Your task to perform on an android device: change your default location settings in chrome Image 0: 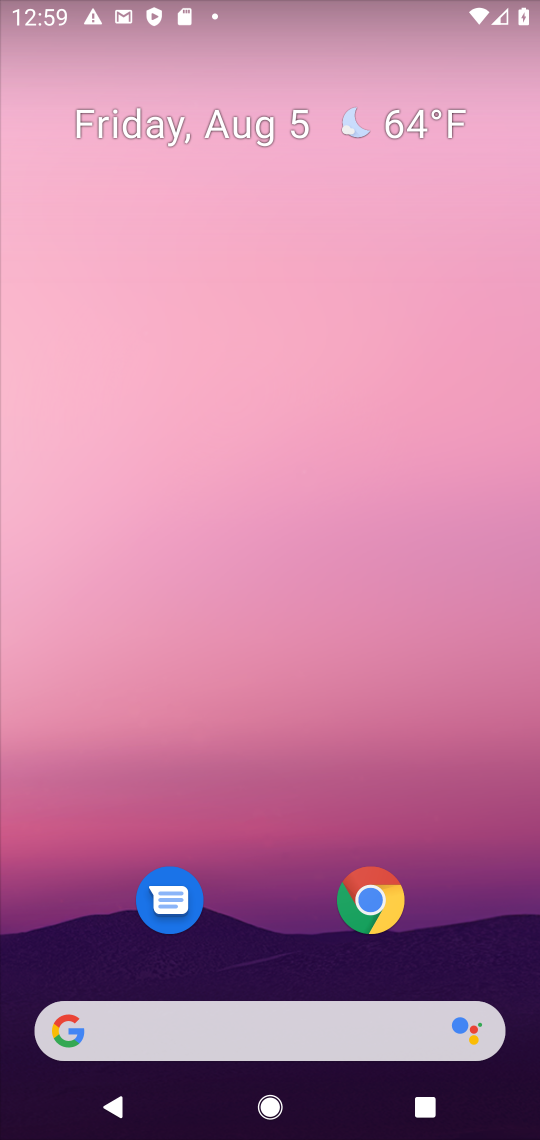
Step 0: drag from (263, 921) to (339, 0)
Your task to perform on an android device: change your default location settings in chrome Image 1: 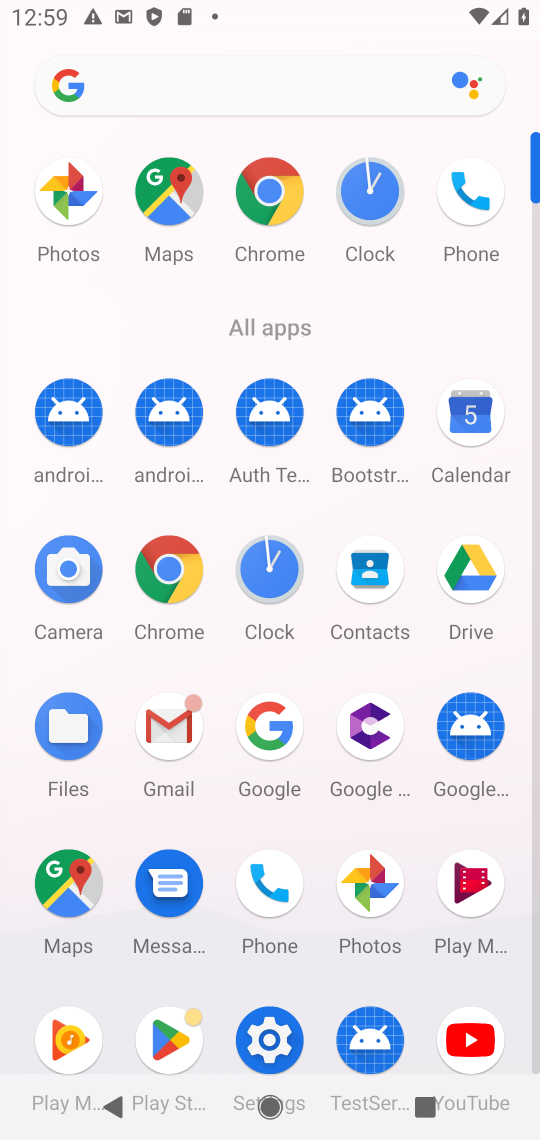
Step 1: click (164, 558)
Your task to perform on an android device: change your default location settings in chrome Image 2: 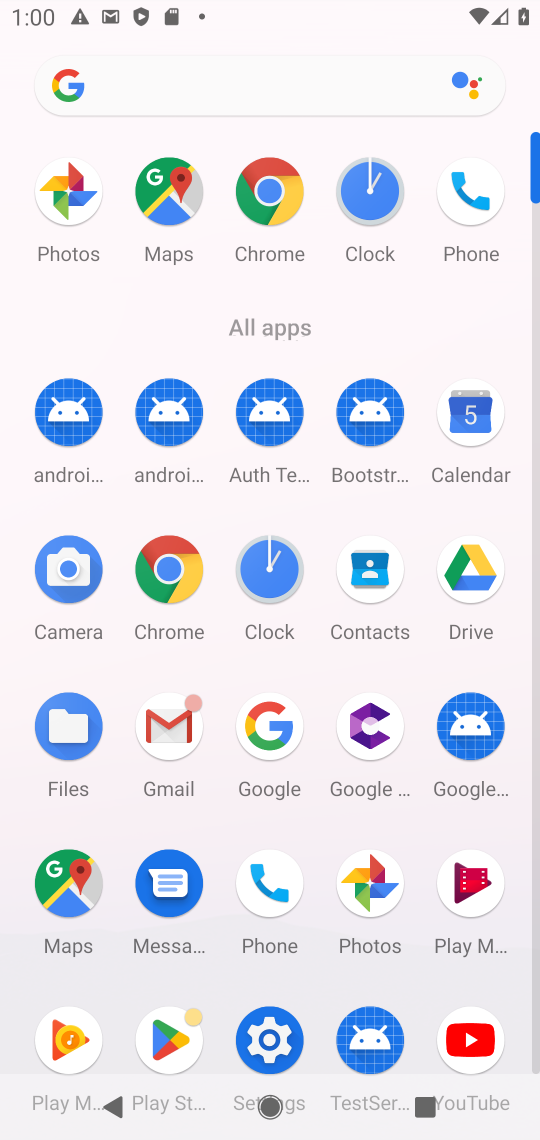
Step 2: click (171, 559)
Your task to perform on an android device: change your default location settings in chrome Image 3: 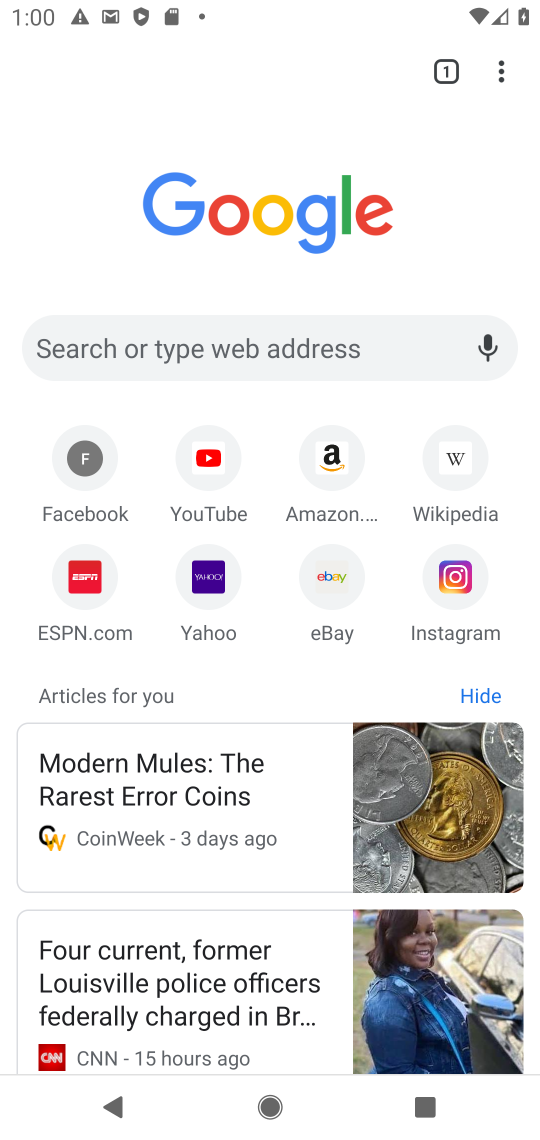
Step 3: click (503, 74)
Your task to perform on an android device: change your default location settings in chrome Image 4: 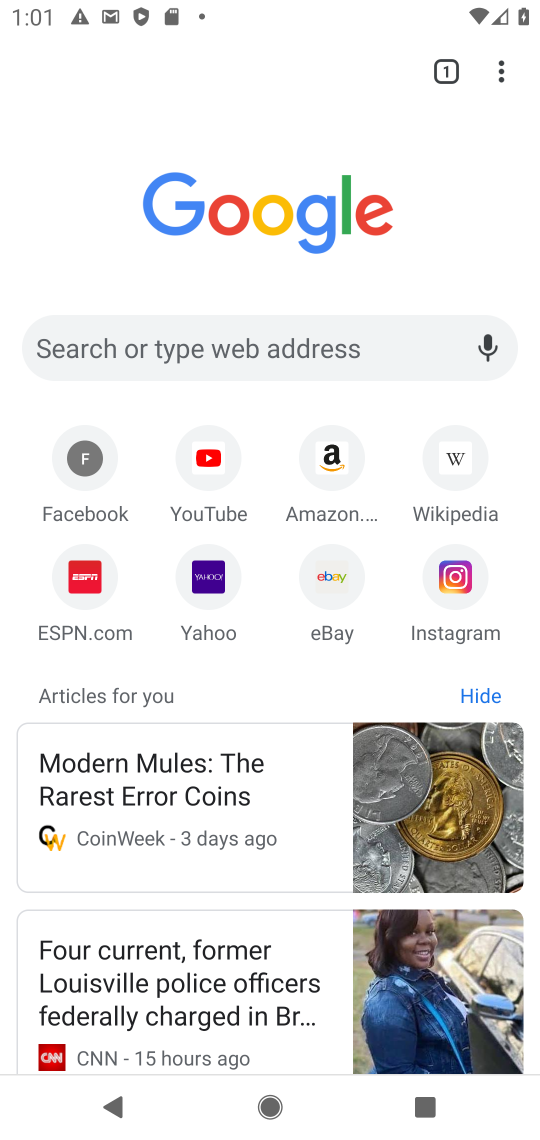
Step 4: click (501, 74)
Your task to perform on an android device: change your default location settings in chrome Image 5: 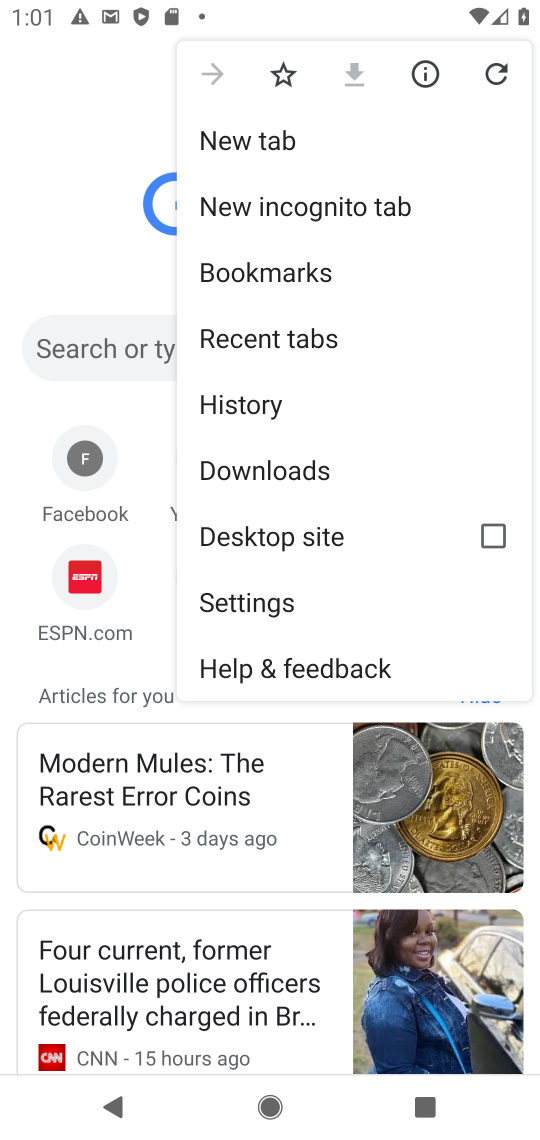
Step 5: click (313, 598)
Your task to perform on an android device: change your default location settings in chrome Image 6: 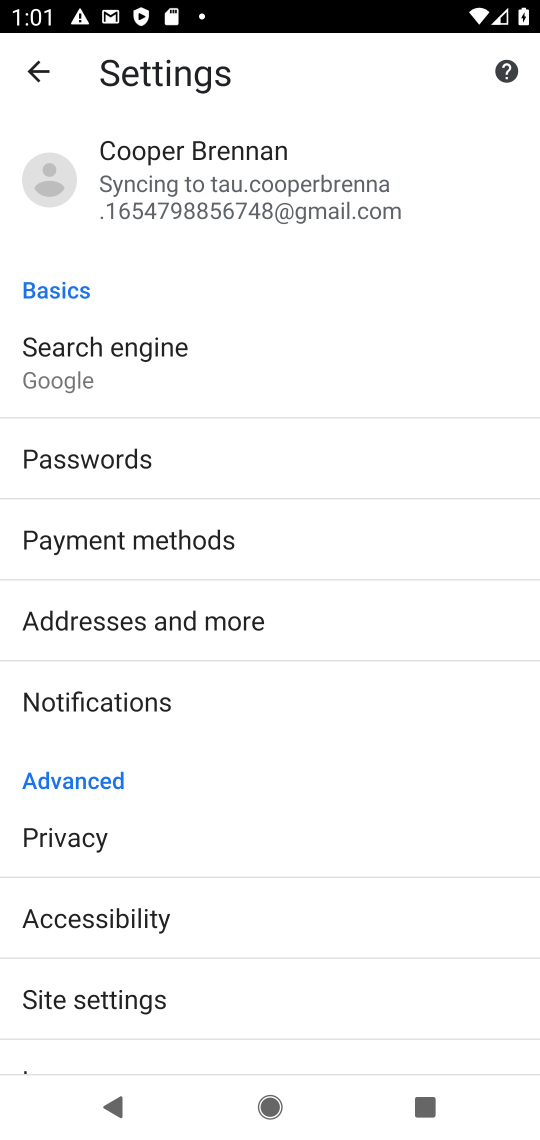
Step 6: drag from (231, 910) to (216, 307)
Your task to perform on an android device: change your default location settings in chrome Image 7: 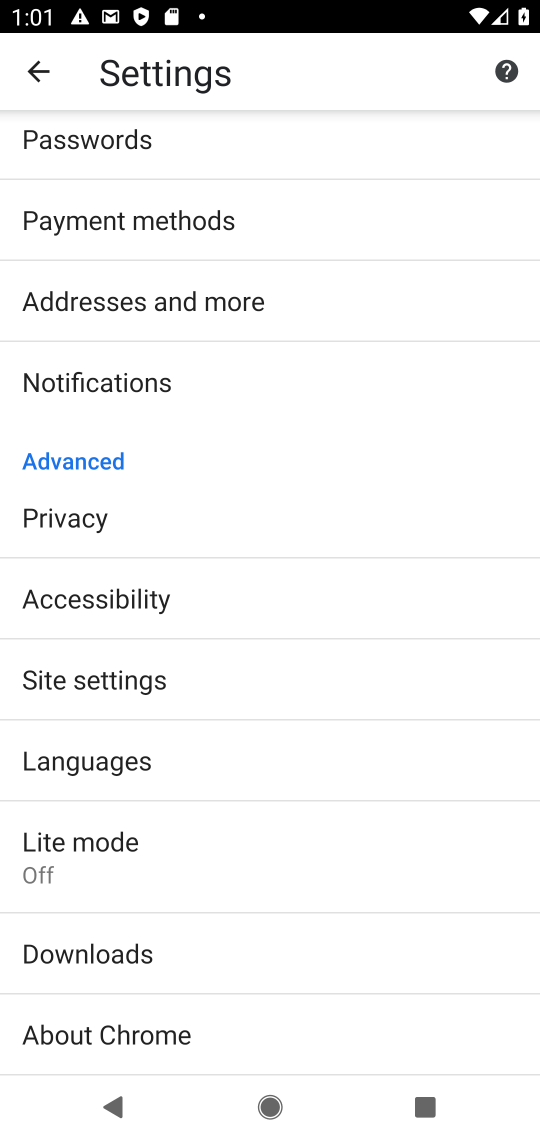
Step 7: click (209, 670)
Your task to perform on an android device: change your default location settings in chrome Image 8: 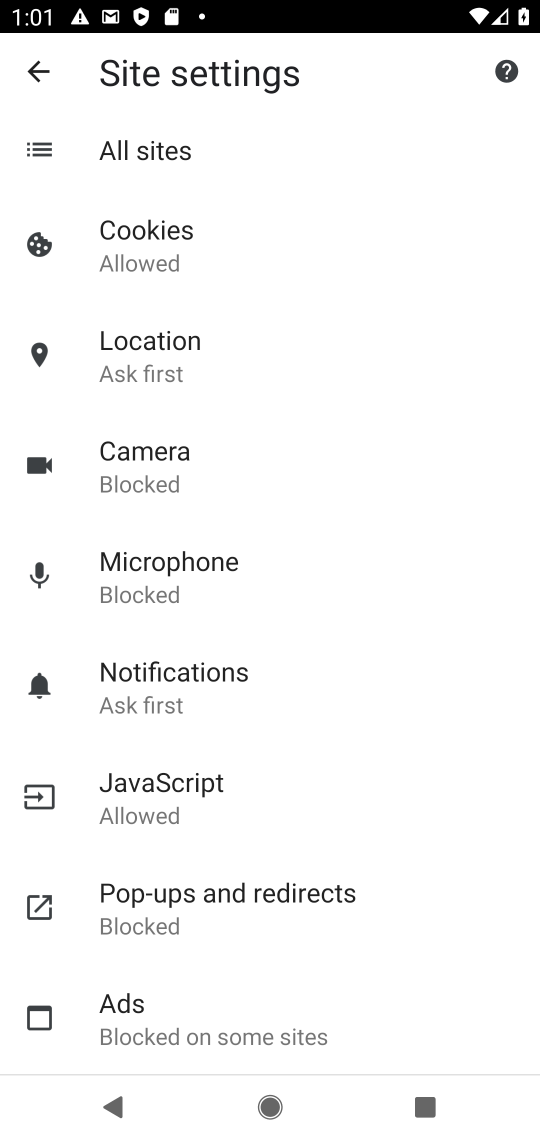
Step 8: click (219, 355)
Your task to perform on an android device: change your default location settings in chrome Image 9: 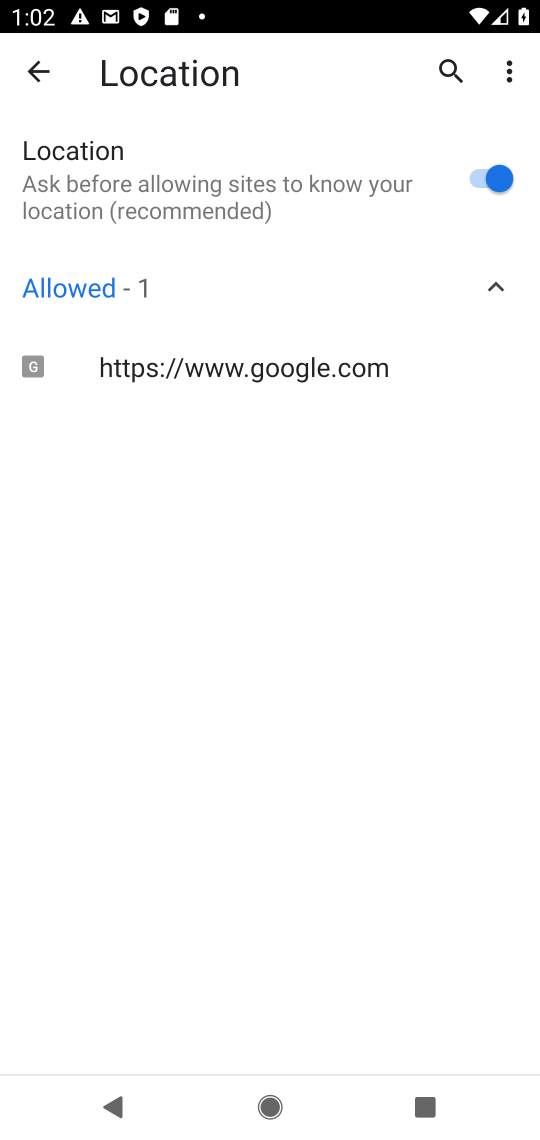
Step 9: task complete